Your task to perform on an android device: all mails in gmail Image 0: 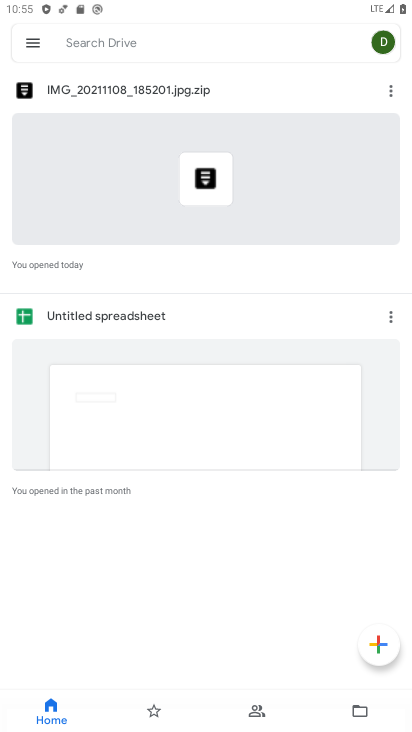
Step 0: press home button
Your task to perform on an android device: all mails in gmail Image 1: 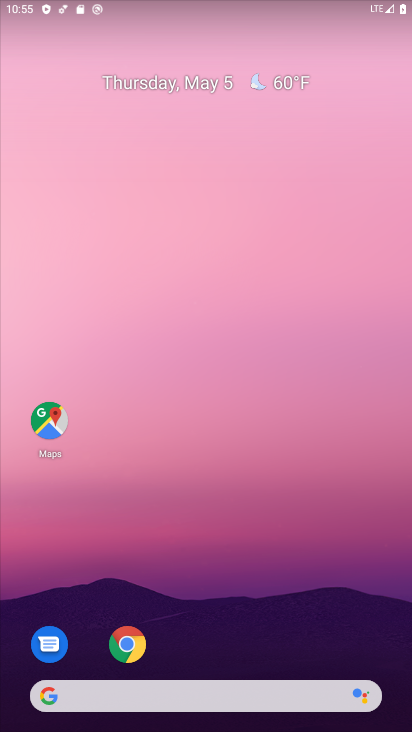
Step 1: drag from (344, 653) to (411, 119)
Your task to perform on an android device: all mails in gmail Image 2: 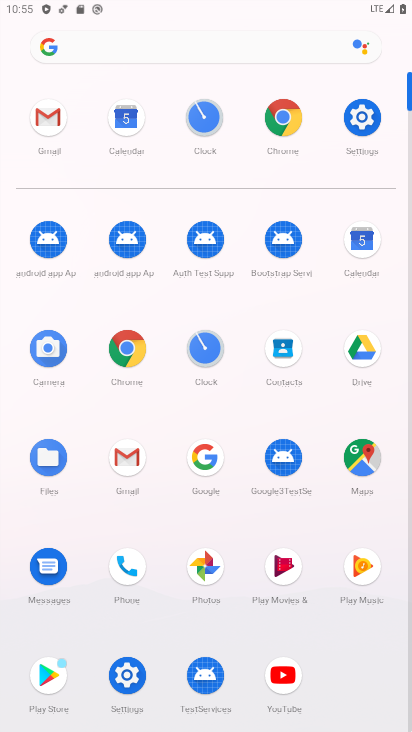
Step 2: click (50, 124)
Your task to perform on an android device: all mails in gmail Image 3: 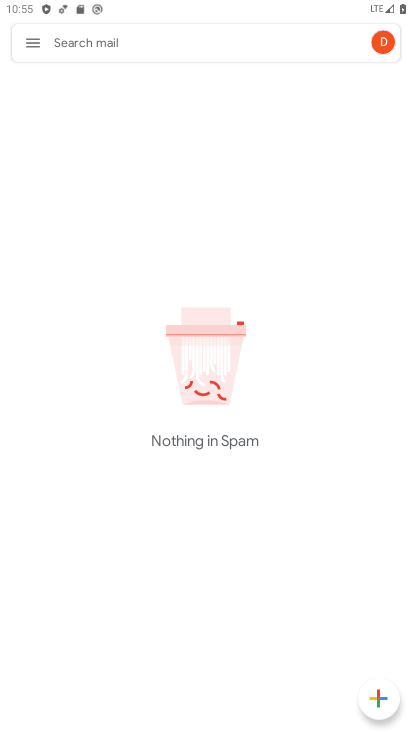
Step 3: click (26, 42)
Your task to perform on an android device: all mails in gmail Image 4: 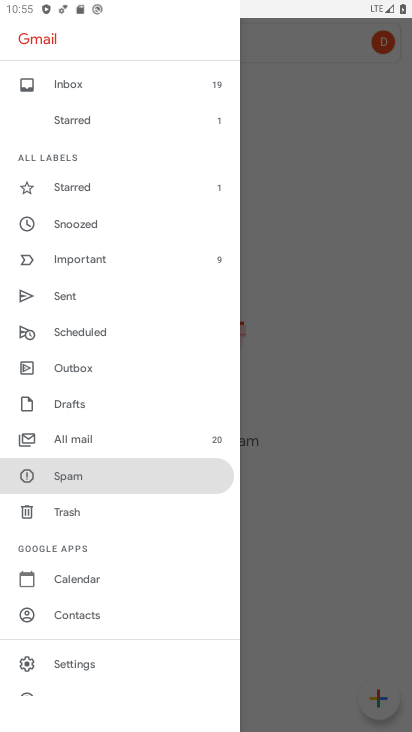
Step 4: click (140, 434)
Your task to perform on an android device: all mails in gmail Image 5: 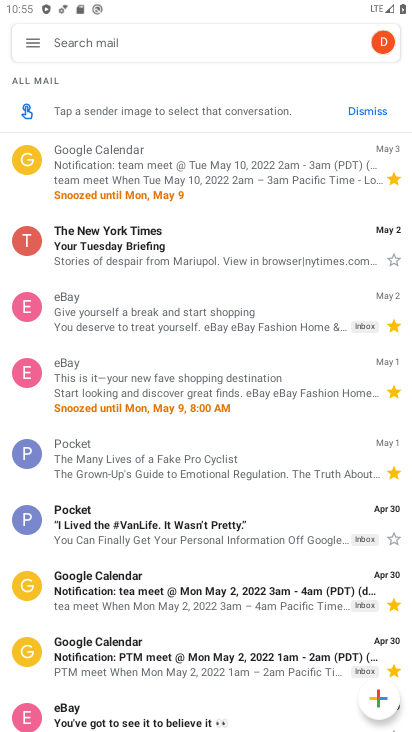
Step 5: task complete